Your task to perform on an android device: Add macbook pro 13 inch to the cart on newegg Image 0: 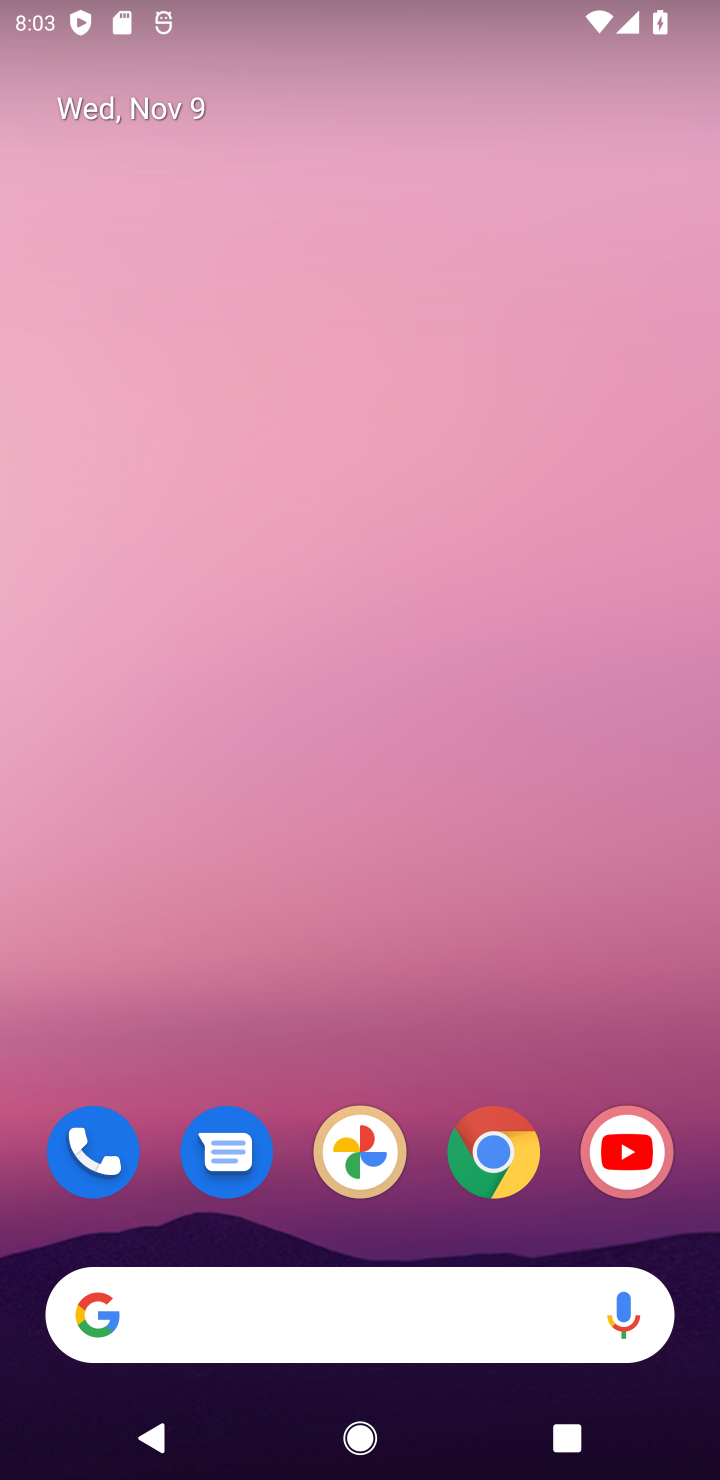
Step 0: click (480, 1140)
Your task to perform on an android device: Add macbook pro 13 inch to the cart on newegg Image 1: 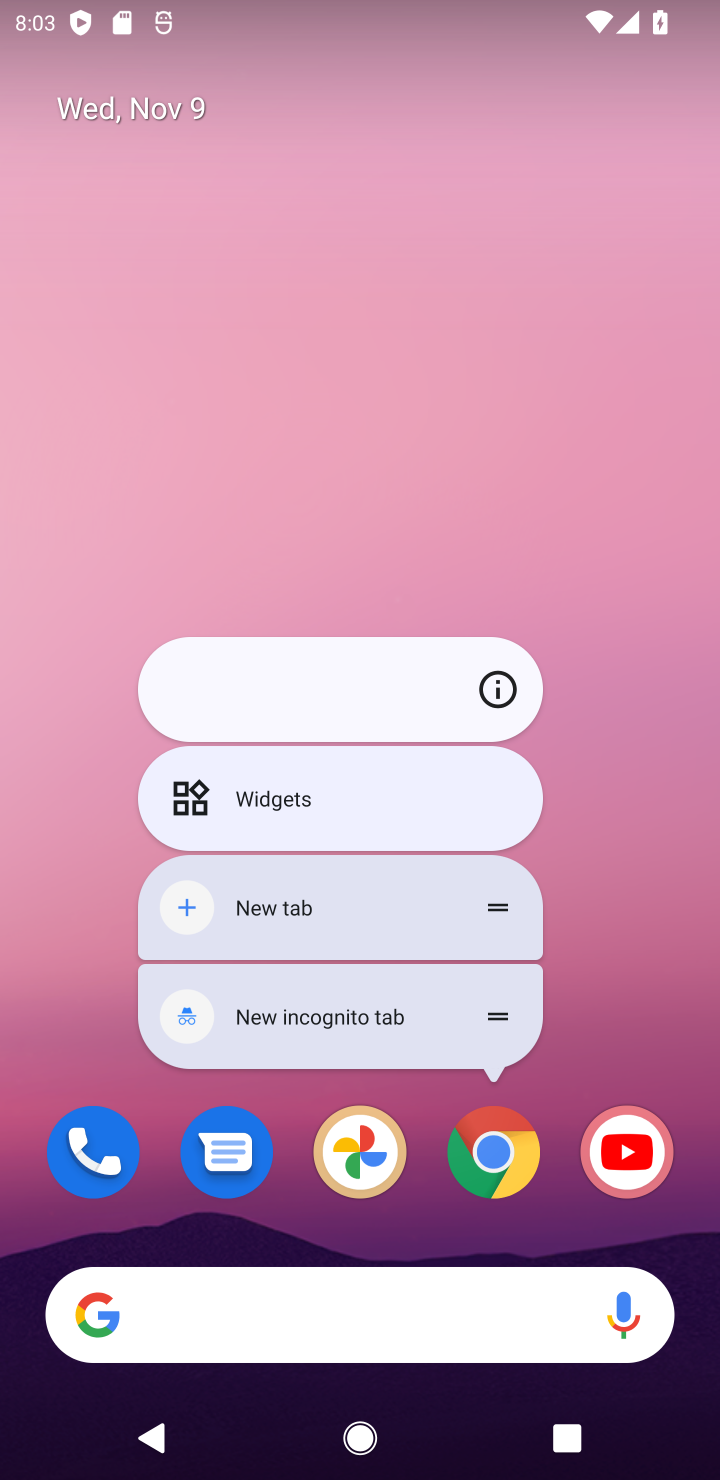
Step 1: click (480, 1149)
Your task to perform on an android device: Add macbook pro 13 inch to the cart on newegg Image 2: 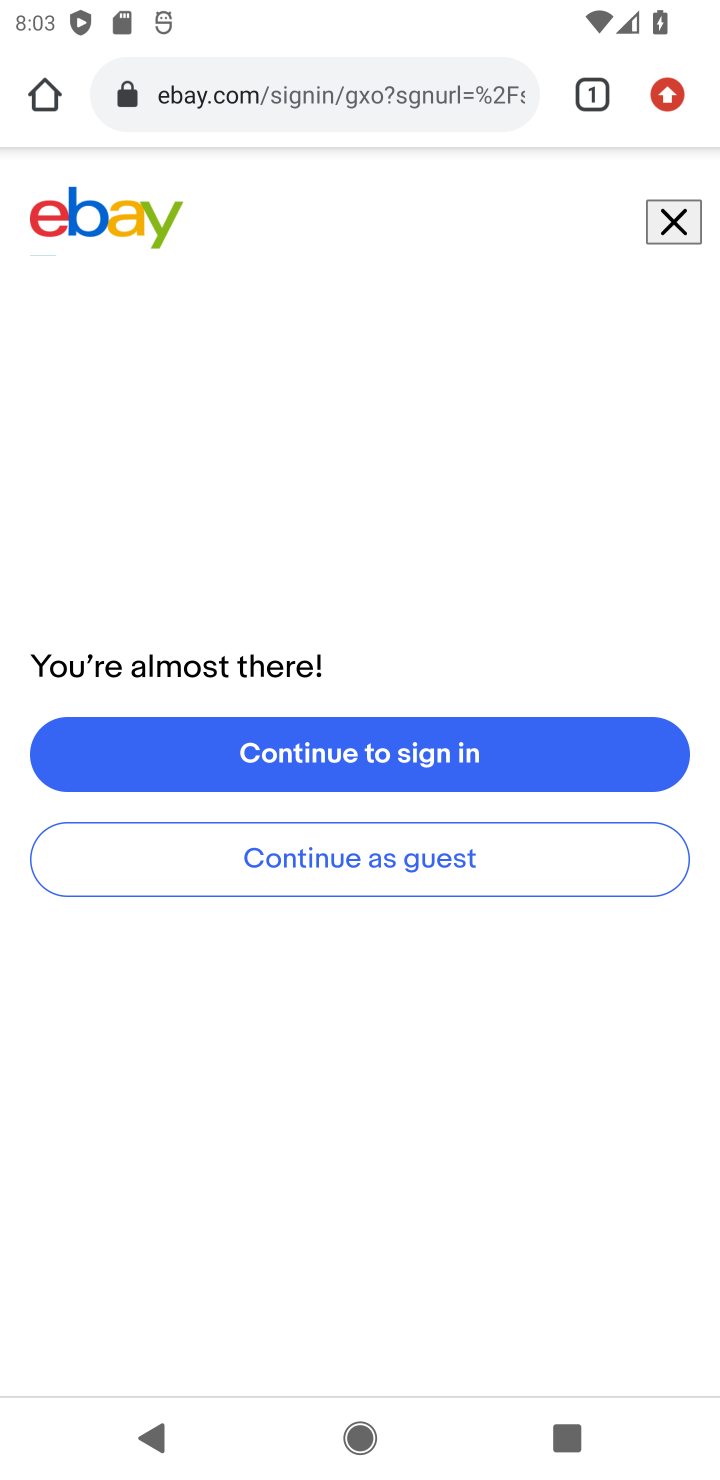
Step 2: click (335, 82)
Your task to perform on an android device: Add macbook pro 13 inch to the cart on newegg Image 3: 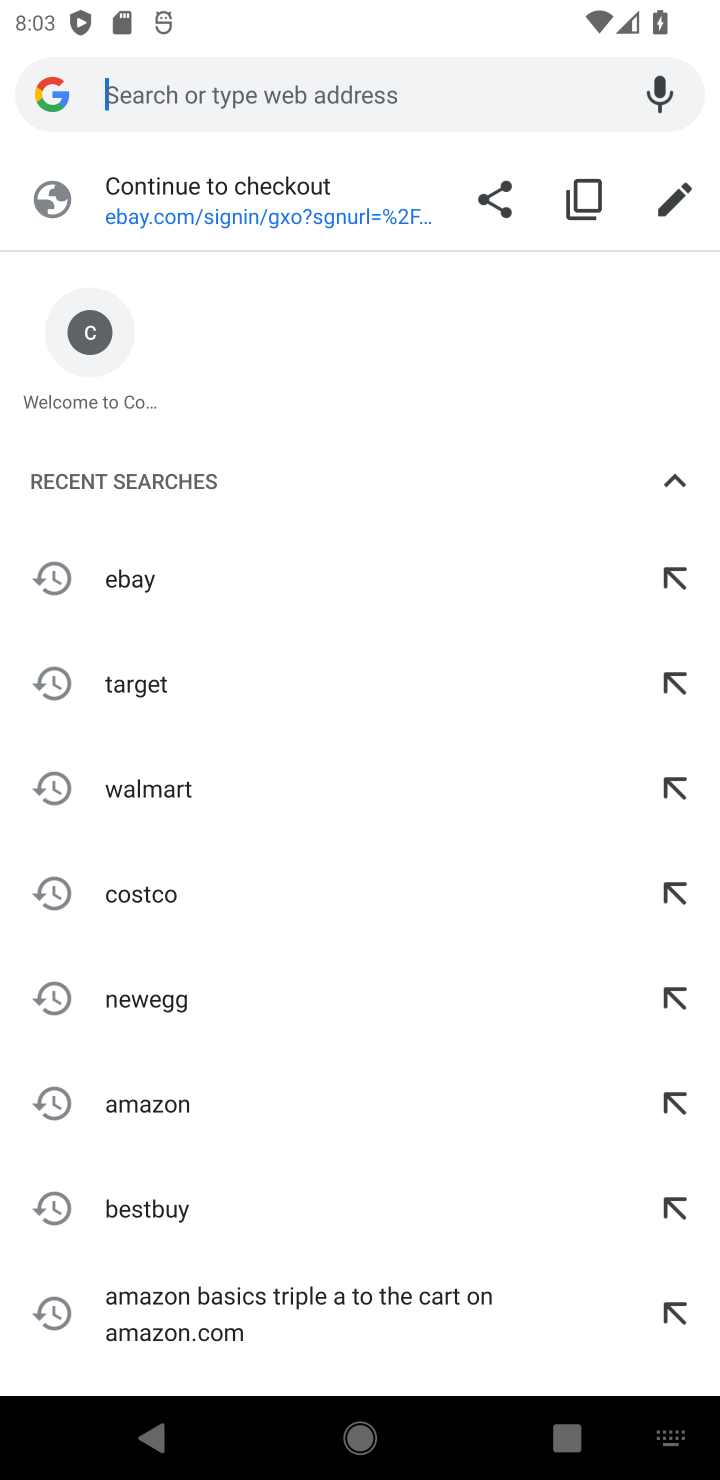
Step 3: click (152, 998)
Your task to perform on an android device: Add macbook pro 13 inch to the cart on newegg Image 4: 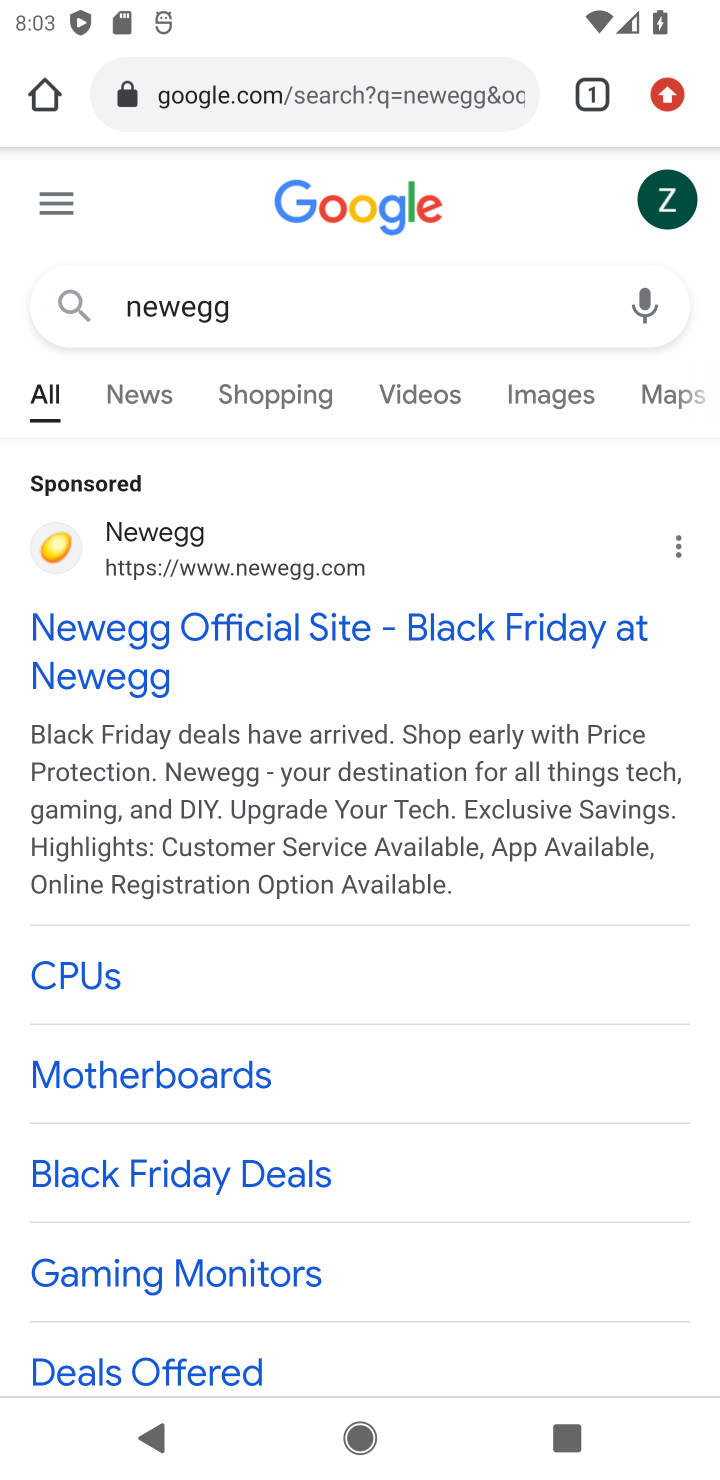
Step 4: click (207, 624)
Your task to perform on an android device: Add macbook pro 13 inch to the cart on newegg Image 5: 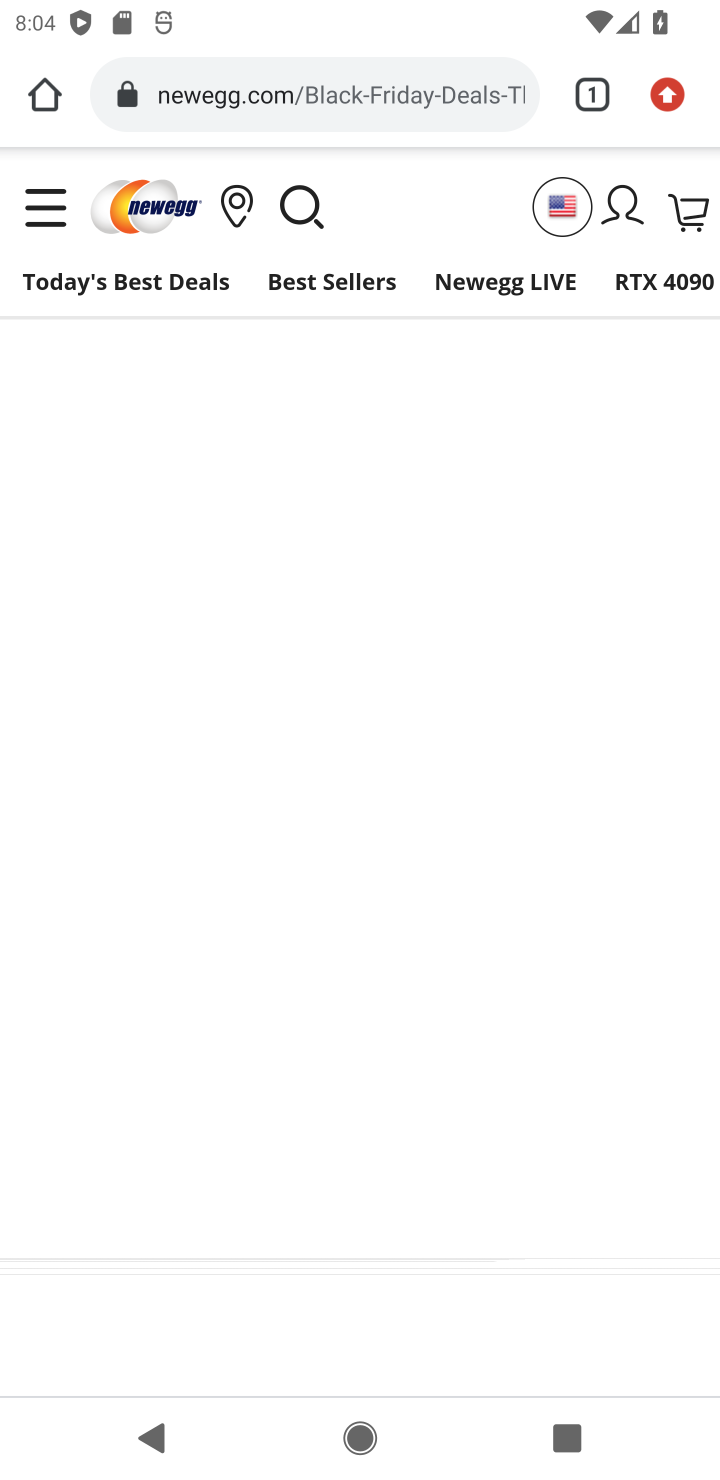
Step 5: click (297, 201)
Your task to perform on an android device: Add macbook pro 13 inch to the cart on newegg Image 6: 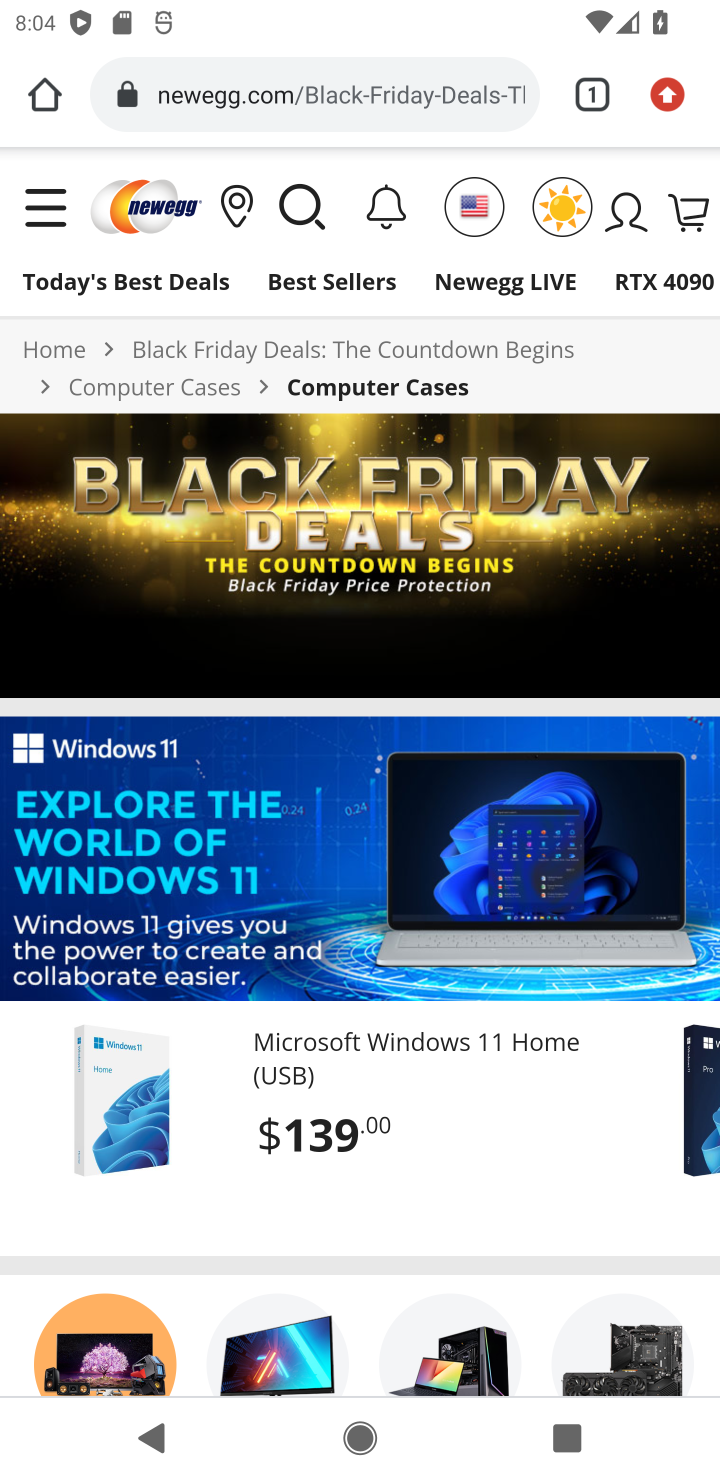
Step 6: click (297, 201)
Your task to perform on an android device: Add macbook pro 13 inch to the cart on newegg Image 7: 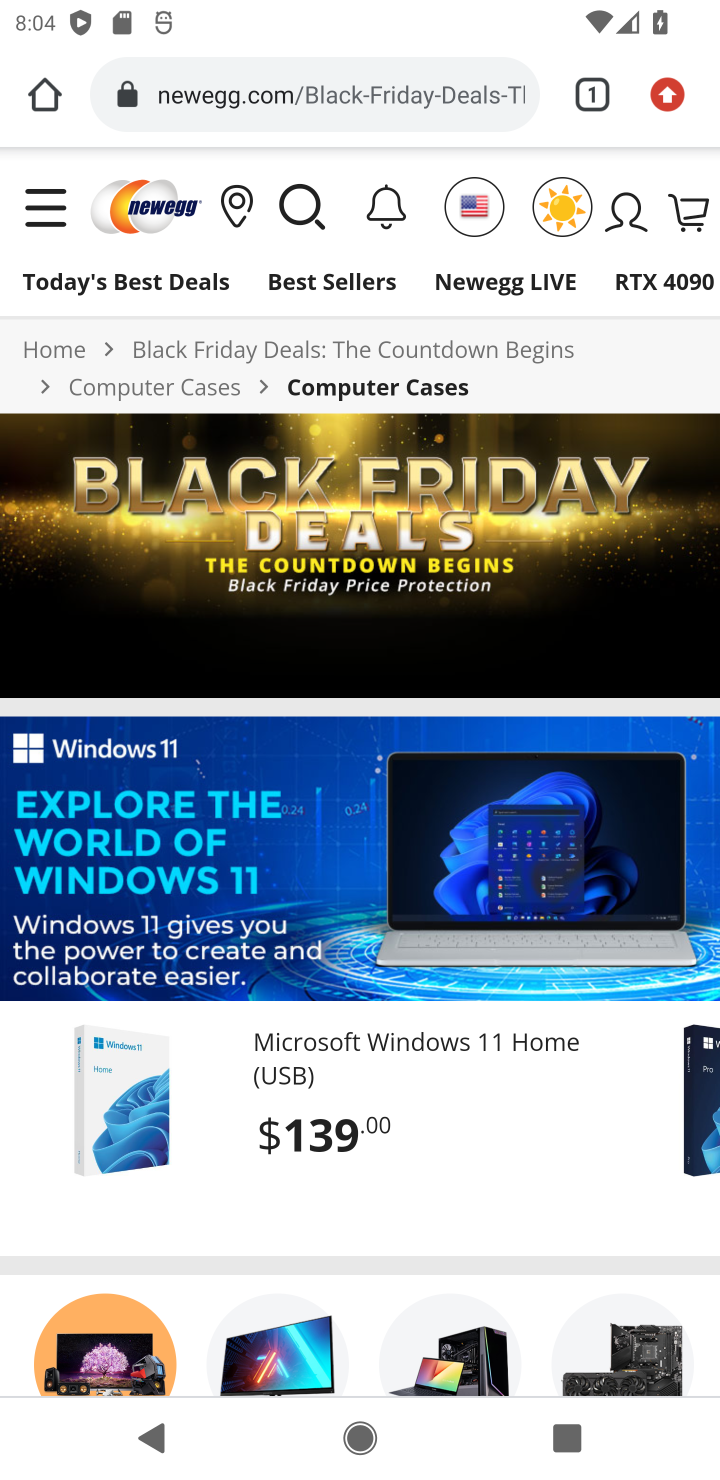
Step 7: click (303, 203)
Your task to perform on an android device: Add macbook pro 13 inch to the cart on newegg Image 8: 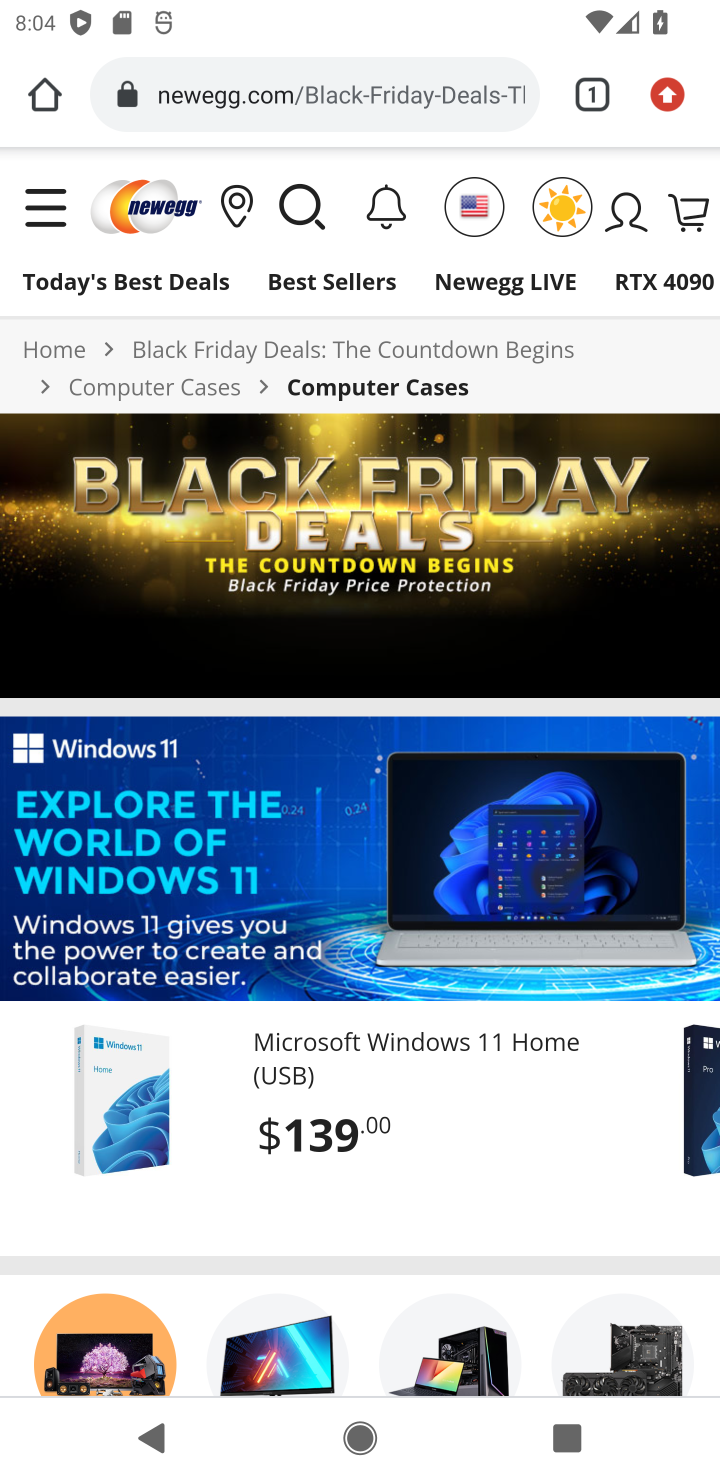
Step 8: click (305, 199)
Your task to perform on an android device: Add macbook pro 13 inch to the cart on newegg Image 9: 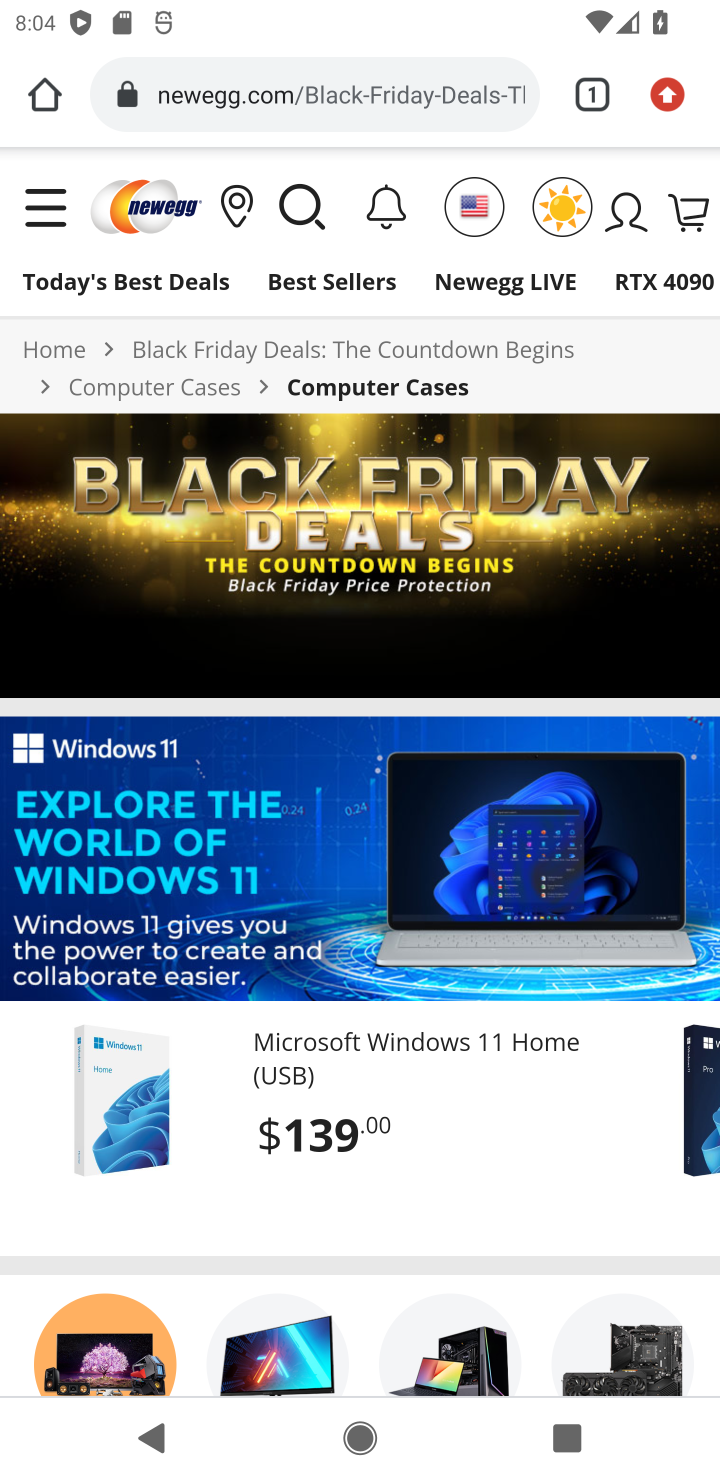
Step 9: click (303, 203)
Your task to perform on an android device: Add macbook pro 13 inch to the cart on newegg Image 10: 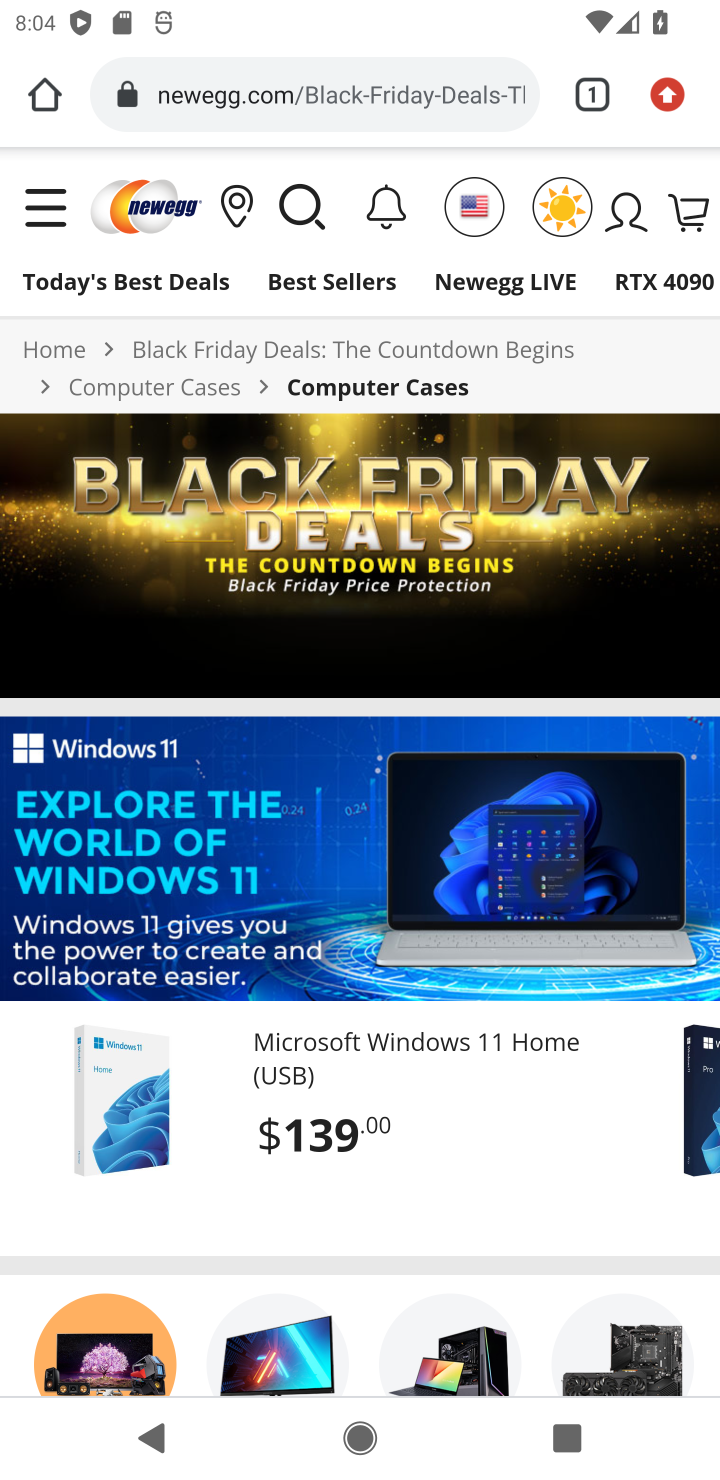
Step 10: click (283, 197)
Your task to perform on an android device: Add macbook pro 13 inch to the cart on newegg Image 11: 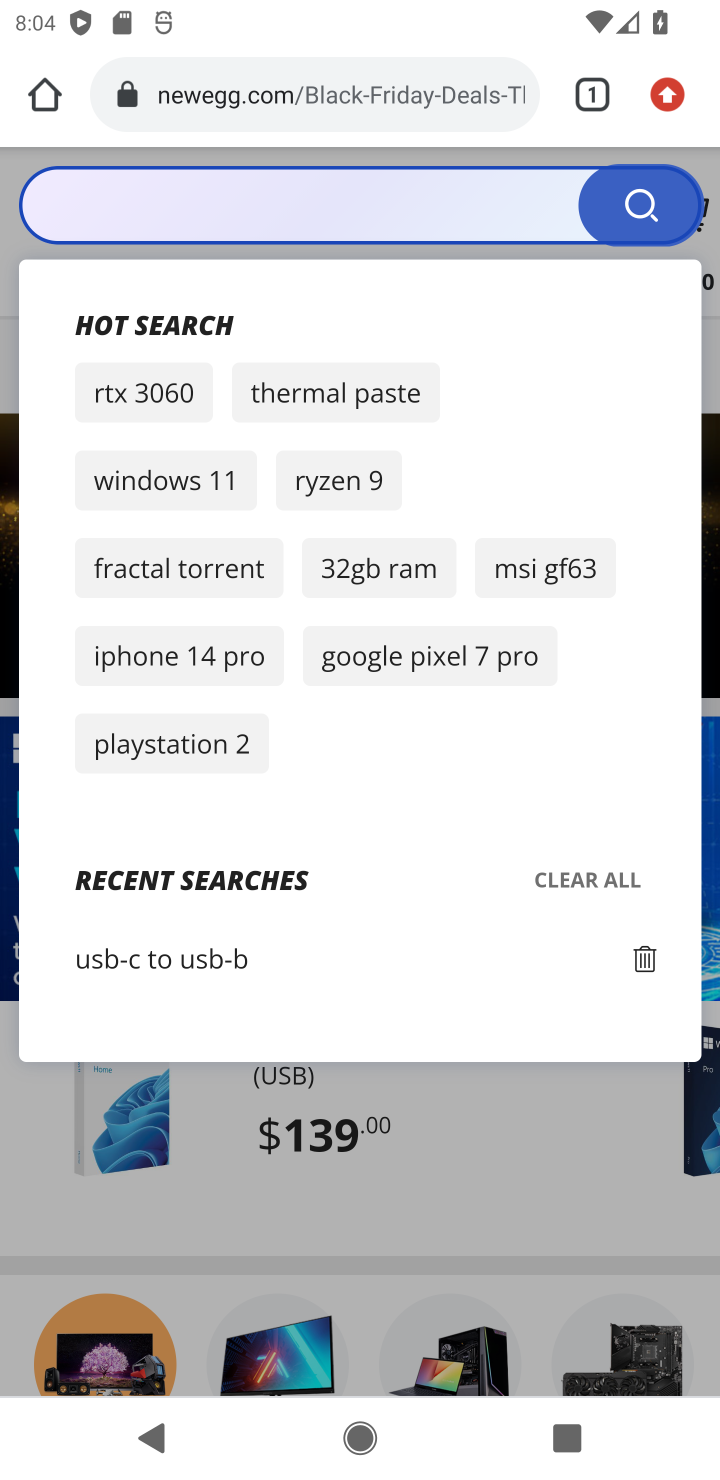
Step 11: click (242, 201)
Your task to perform on an android device: Add macbook pro 13 inch to the cart on newegg Image 12: 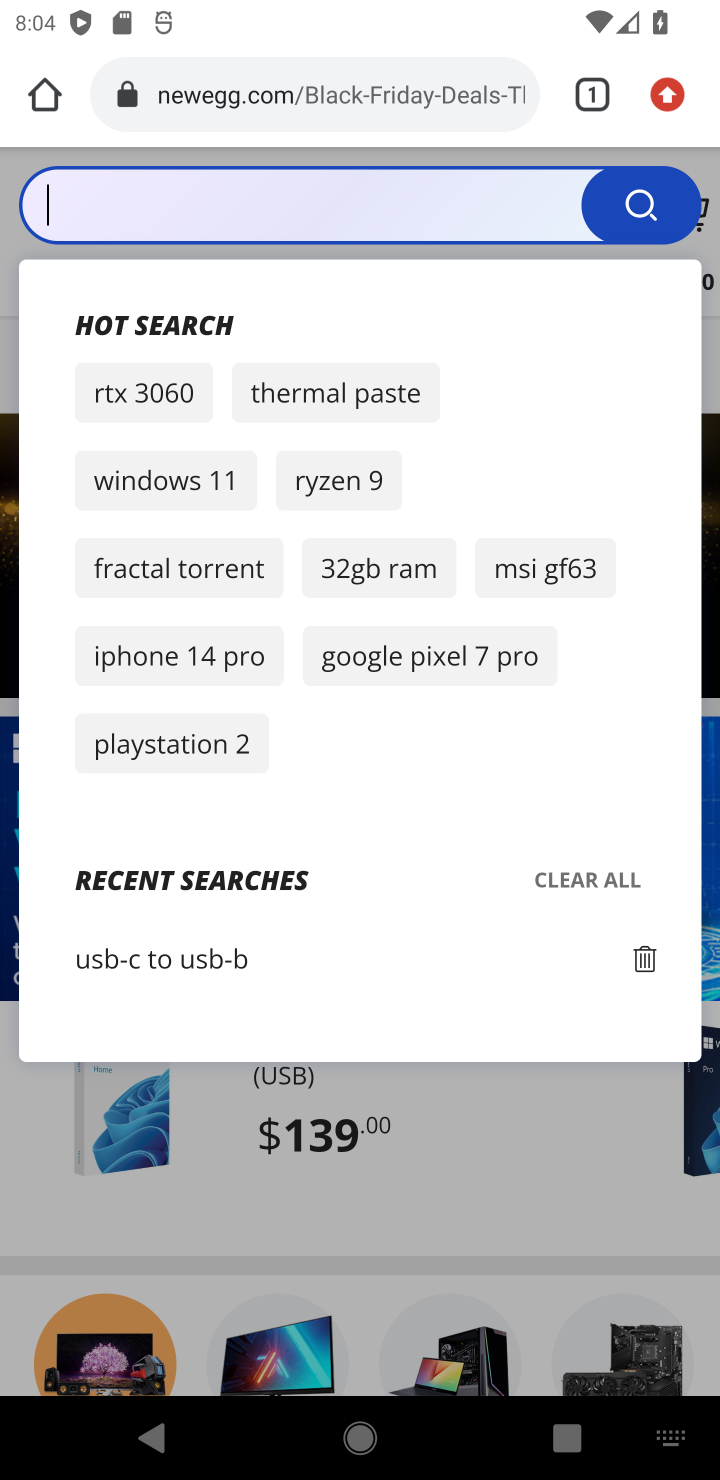
Step 12: click (216, 191)
Your task to perform on an android device: Add macbook pro 13 inch to the cart on newegg Image 13: 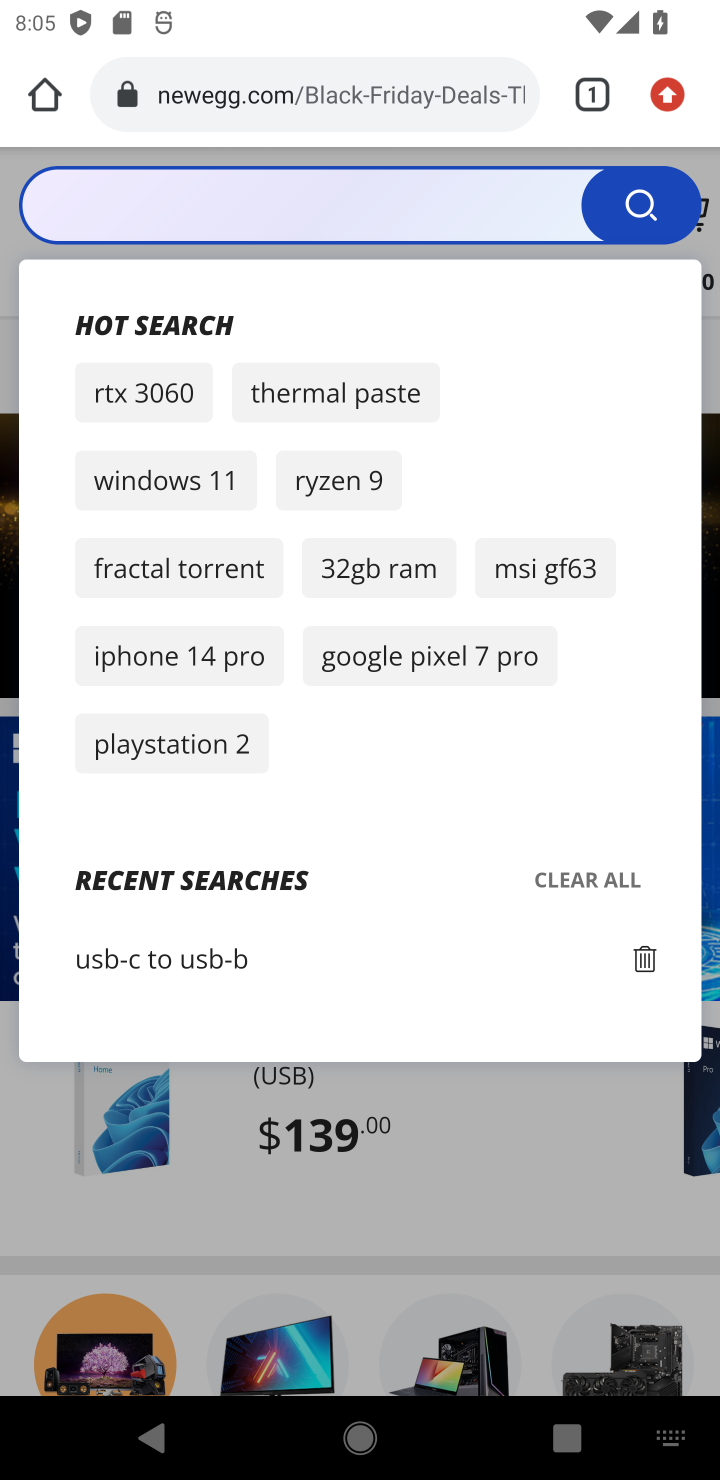
Step 13: press enter
Your task to perform on an android device: Add macbook pro 13 inch to the cart on newegg Image 14: 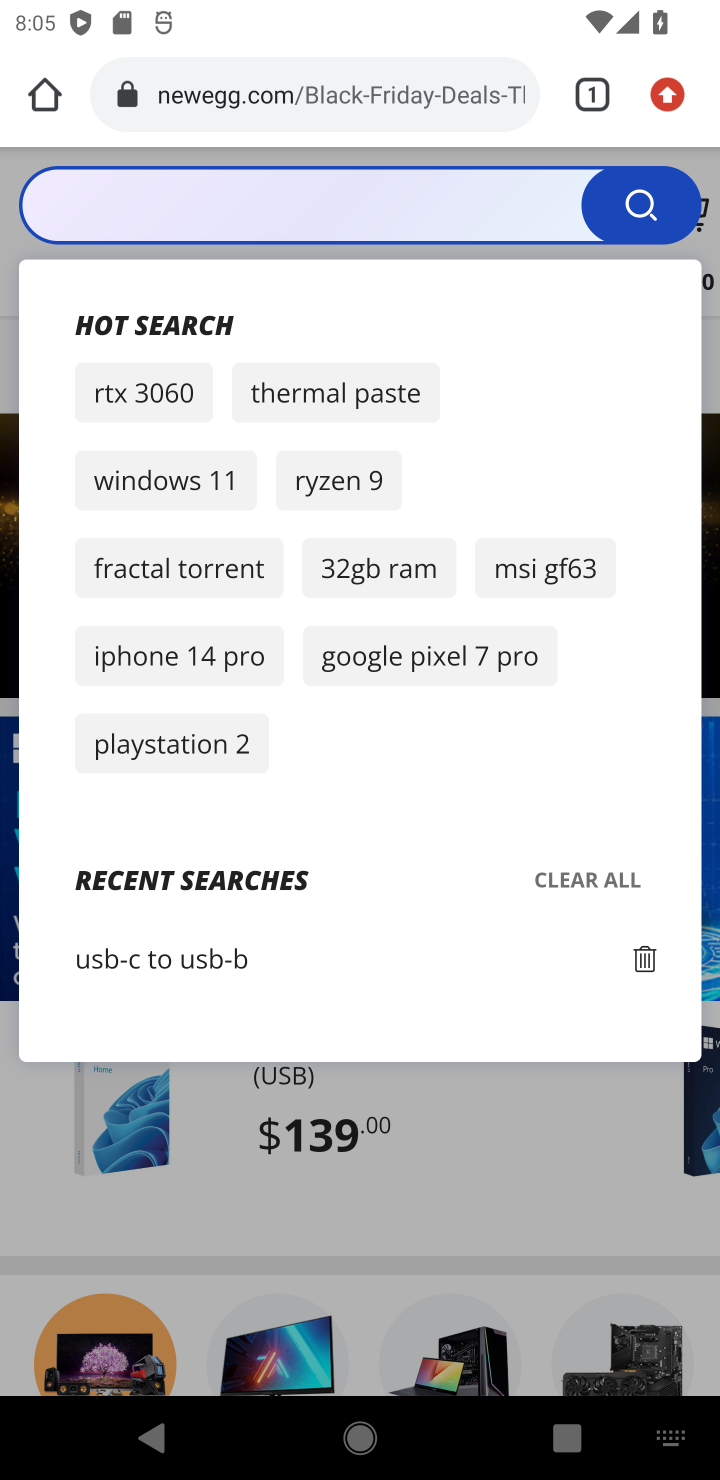
Step 14: type " macbook pro 13"
Your task to perform on an android device: Add macbook pro 13 inch to the cart on newegg Image 15: 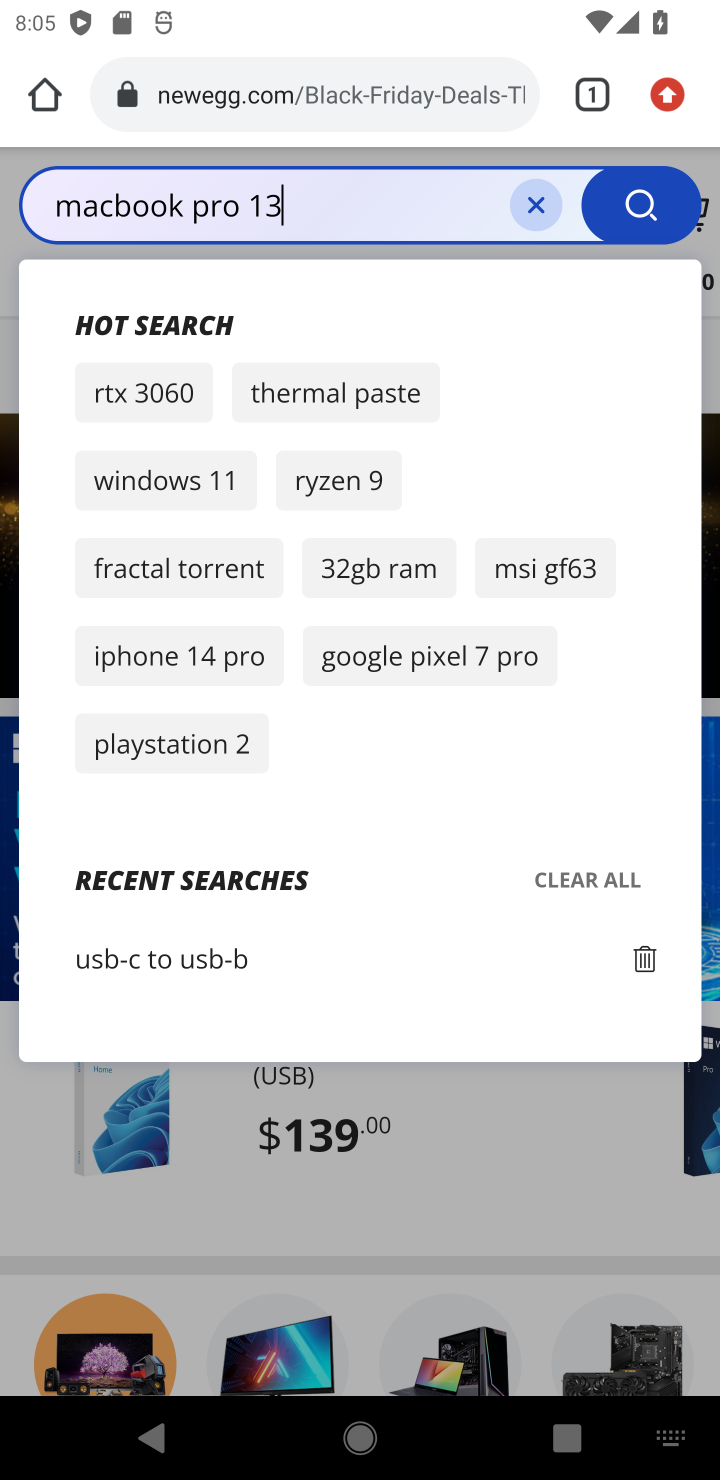
Step 15: click (649, 194)
Your task to perform on an android device: Add macbook pro 13 inch to the cart on newegg Image 16: 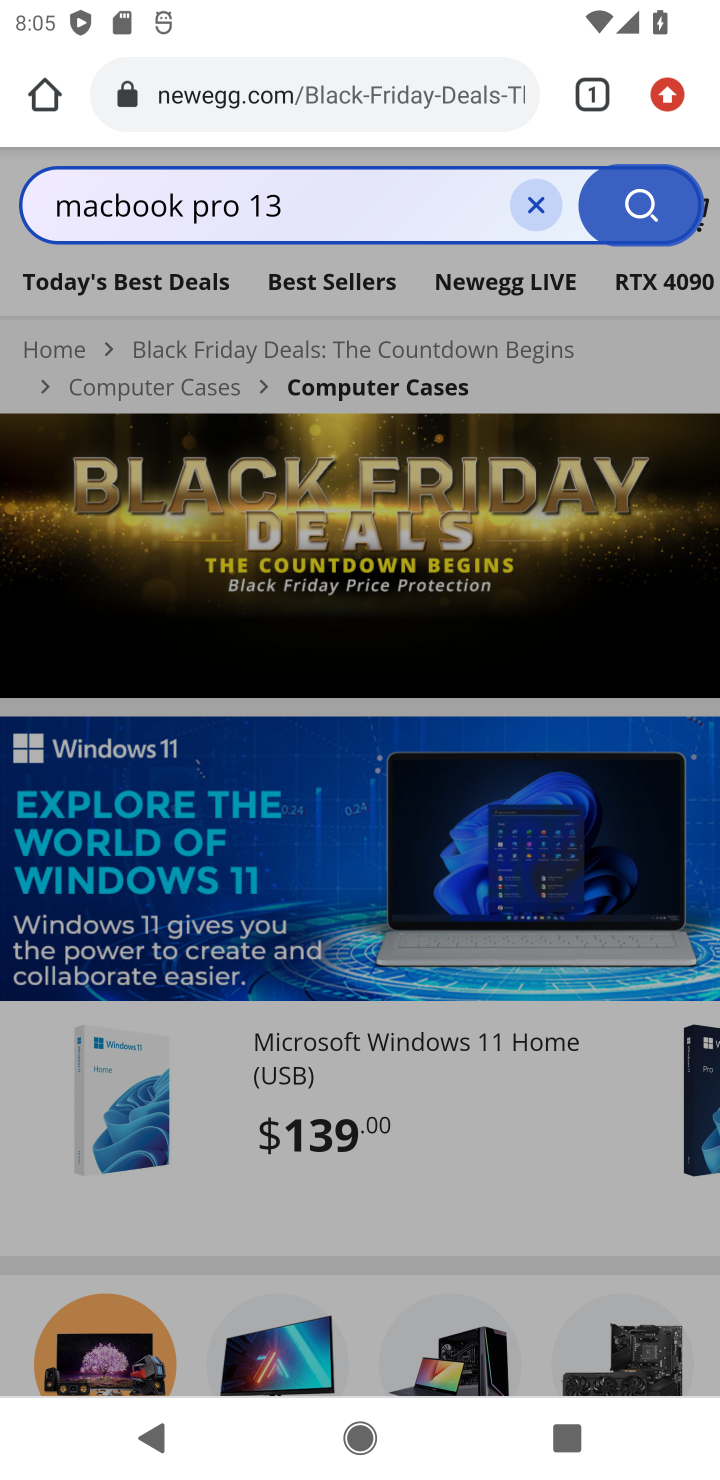
Step 16: click (645, 208)
Your task to perform on an android device: Add macbook pro 13 inch to the cart on newegg Image 17: 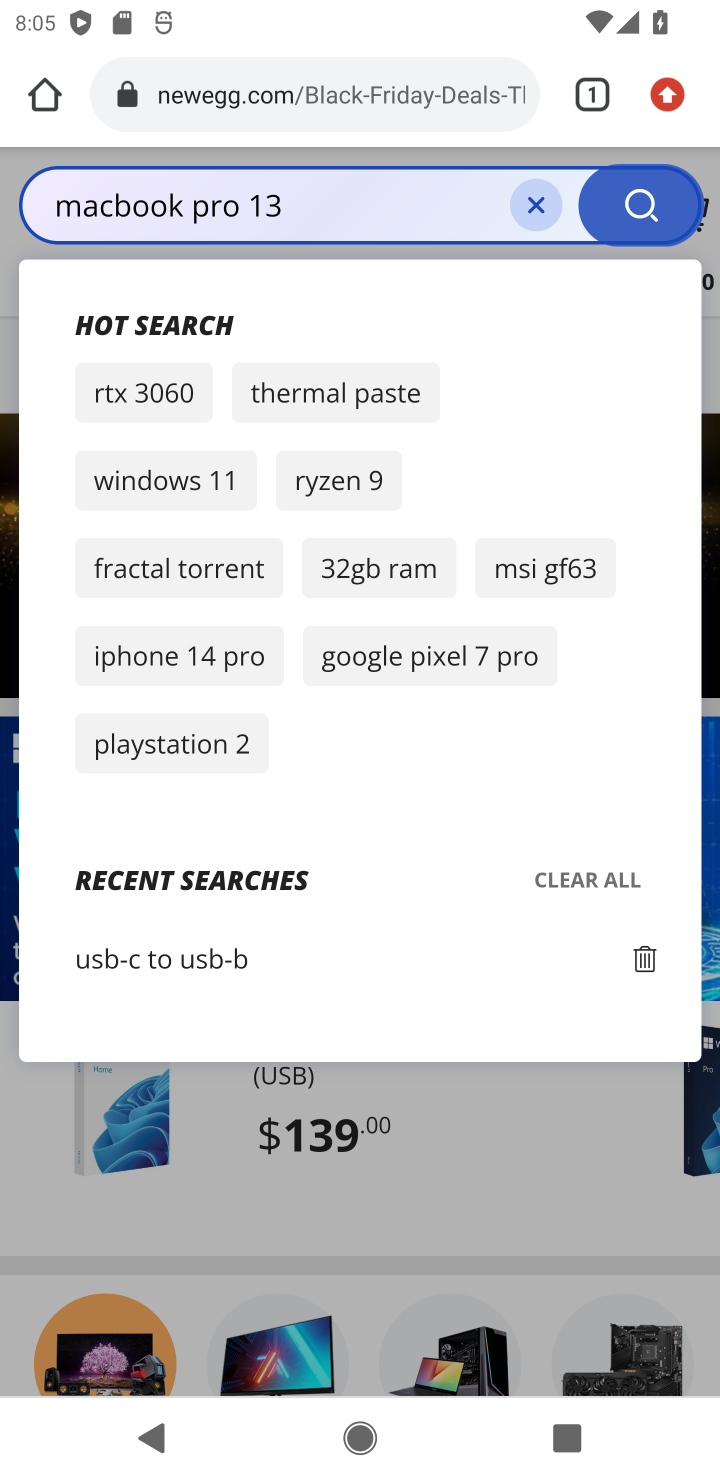
Step 17: click (645, 208)
Your task to perform on an android device: Add macbook pro 13 inch to the cart on newegg Image 18: 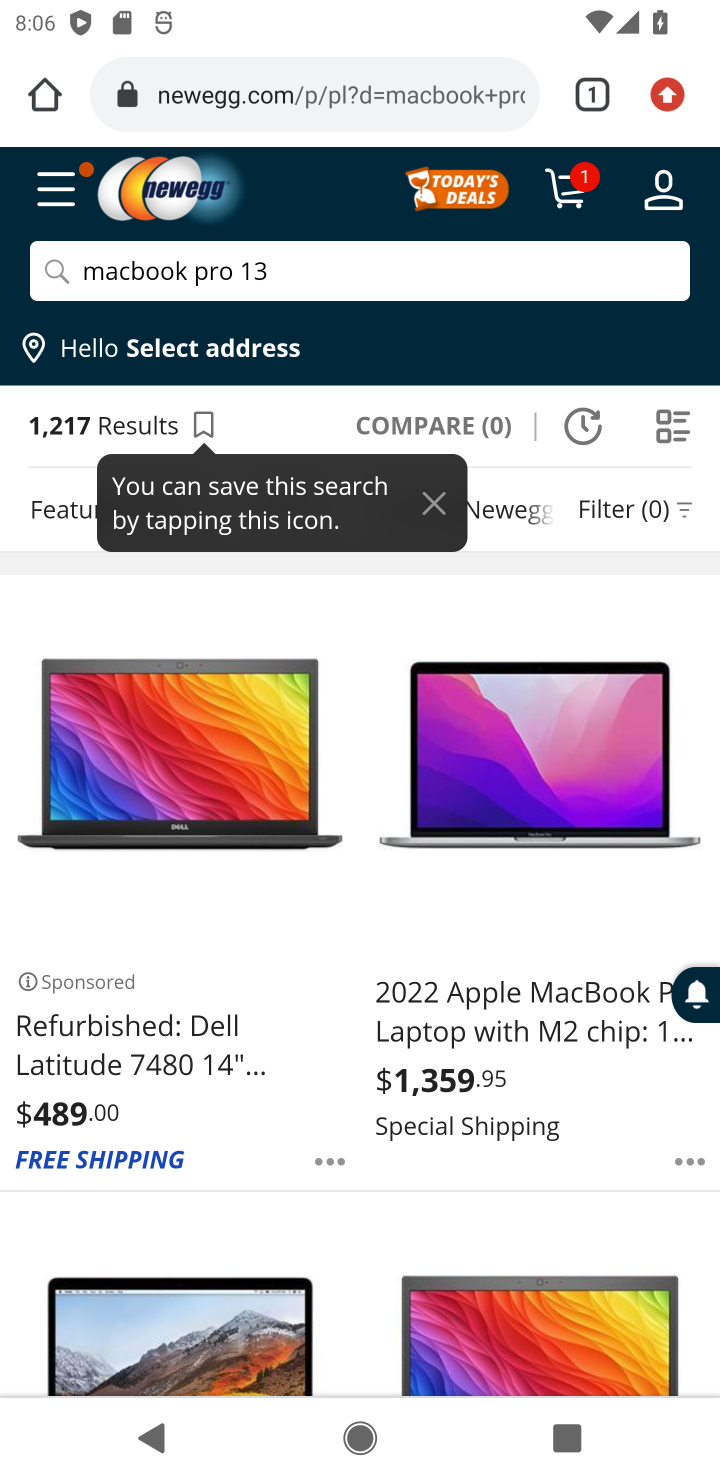
Step 18: task complete